Your task to perform on an android device: Open the camera Image 0: 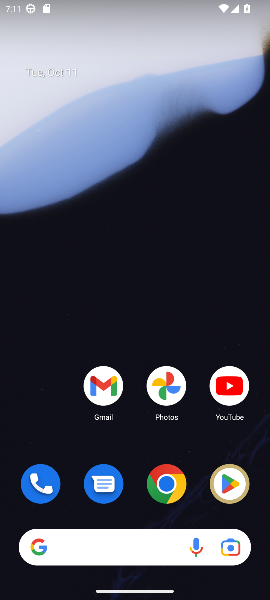
Step 0: drag from (133, 554) to (165, 270)
Your task to perform on an android device: Open the camera Image 1: 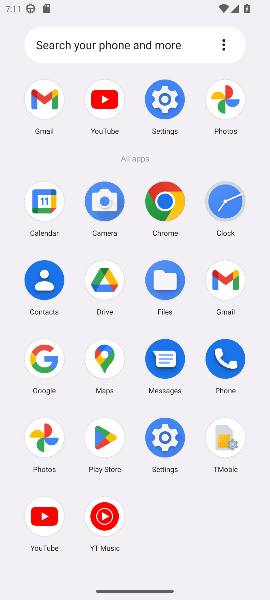
Step 1: click (104, 202)
Your task to perform on an android device: Open the camera Image 2: 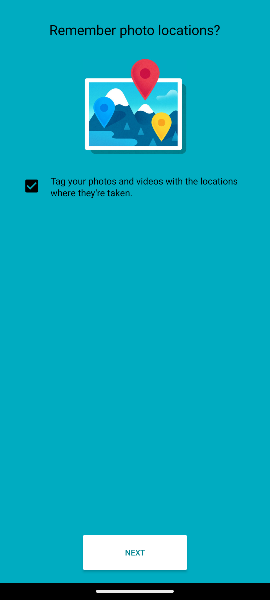
Step 2: click (143, 551)
Your task to perform on an android device: Open the camera Image 3: 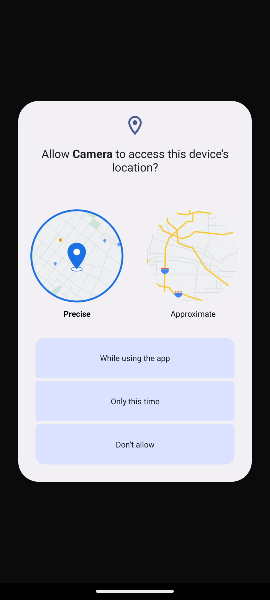
Step 3: click (155, 360)
Your task to perform on an android device: Open the camera Image 4: 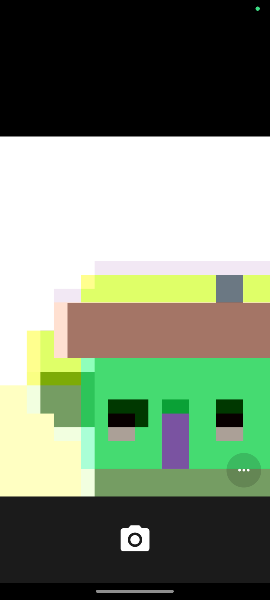
Step 4: task complete